Your task to perform on an android device: Show me productivity apps on the Play Store Image 0: 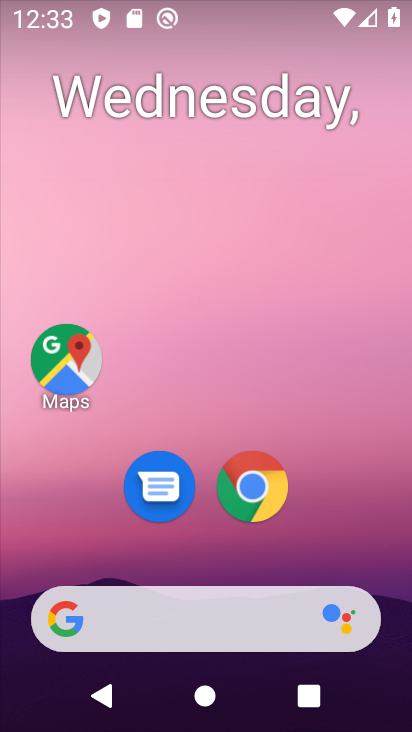
Step 0: drag from (166, 569) to (256, 63)
Your task to perform on an android device: Show me productivity apps on the Play Store Image 1: 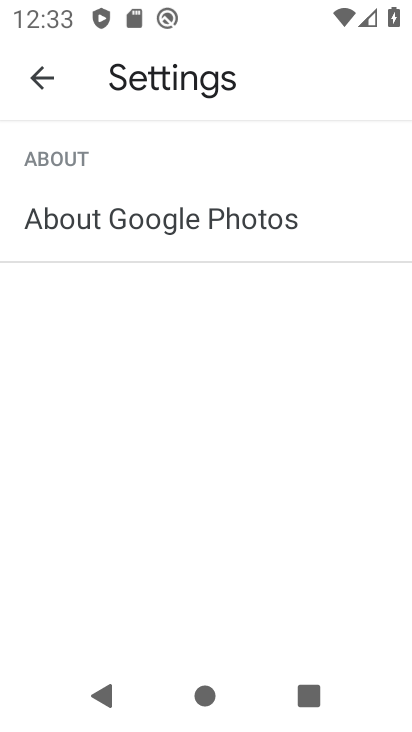
Step 1: press back button
Your task to perform on an android device: Show me productivity apps on the Play Store Image 2: 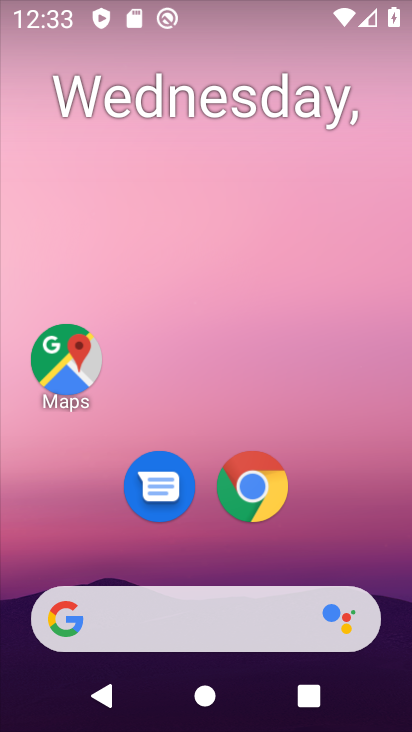
Step 2: drag from (166, 578) to (268, 106)
Your task to perform on an android device: Show me productivity apps on the Play Store Image 3: 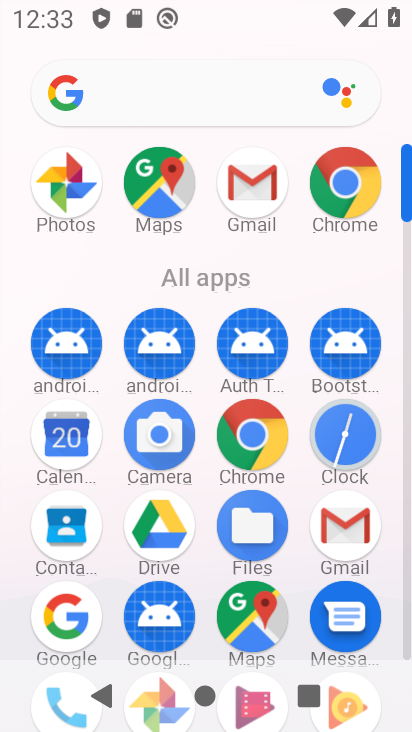
Step 3: drag from (204, 643) to (271, 363)
Your task to perform on an android device: Show me productivity apps on the Play Store Image 4: 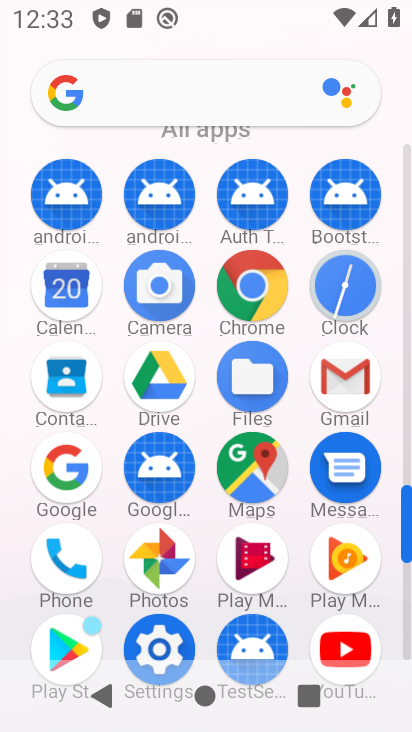
Step 4: click (70, 633)
Your task to perform on an android device: Show me productivity apps on the Play Store Image 5: 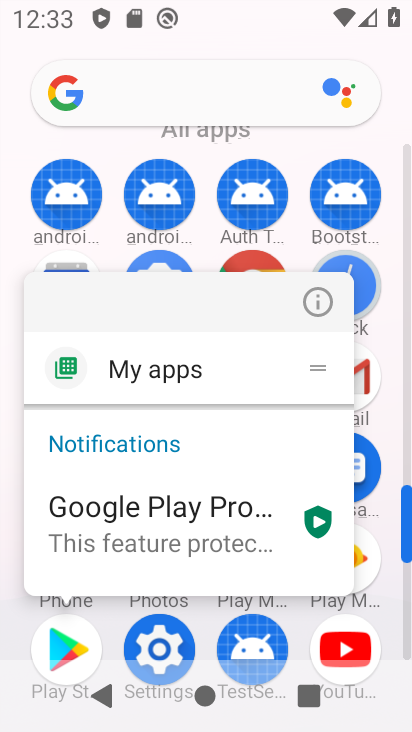
Step 5: click (63, 638)
Your task to perform on an android device: Show me productivity apps on the Play Store Image 6: 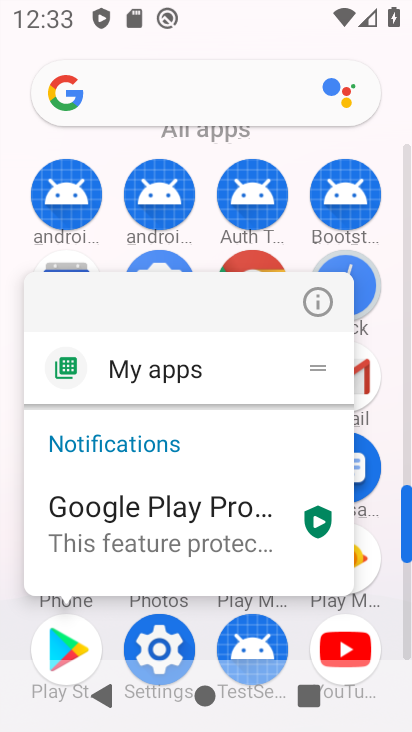
Step 6: click (68, 645)
Your task to perform on an android device: Show me productivity apps on the Play Store Image 7: 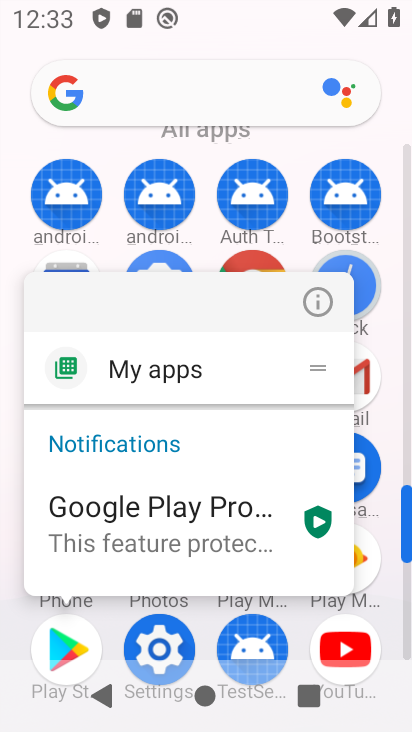
Step 7: click (71, 645)
Your task to perform on an android device: Show me productivity apps on the Play Store Image 8: 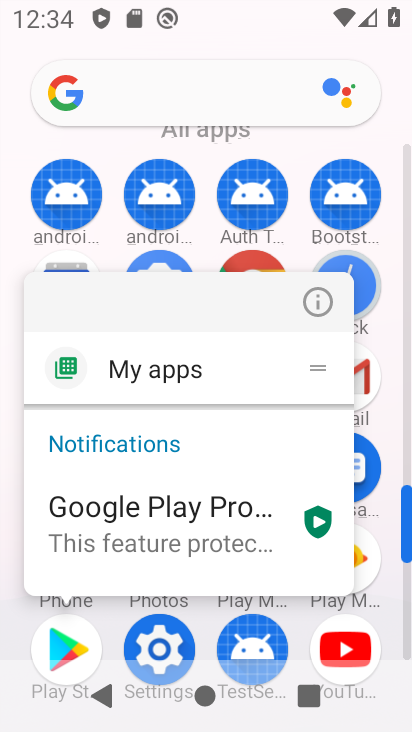
Step 8: click (50, 653)
Your task to perform on an android device: Show me productivity apps on the Play Store Image 9: 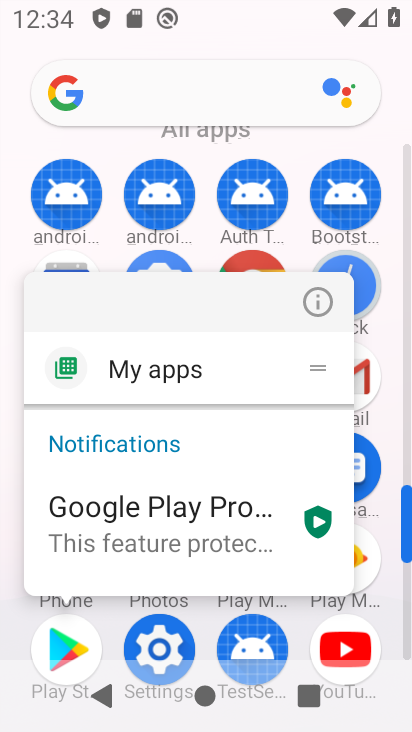
Step 9: click (64, 648)
Your task to perform on an android device: Show me productivity apps on the Play Store Image 10: 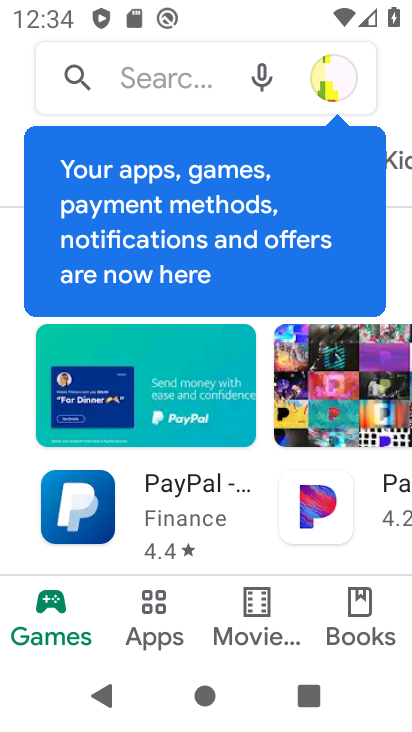
Step 10: click (146, 613)
Your task to perform on an android device: Show me productivity apps on the Play Store Image 11: 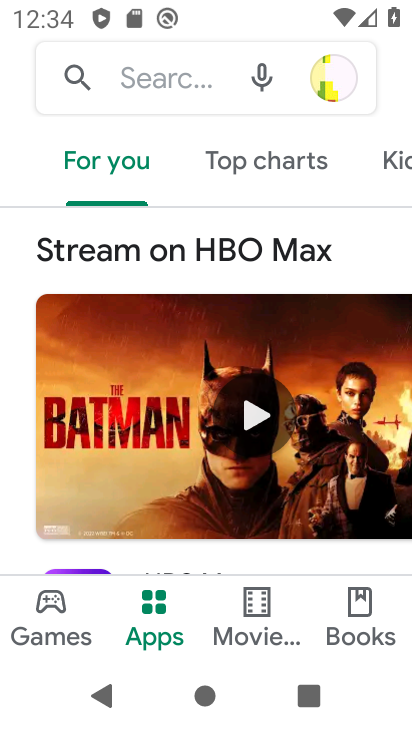
Step 11: drag from (362, 175) to (28, 160)
Your task to perform on an android device: Show me productivity apps on the Play Store Image 12: 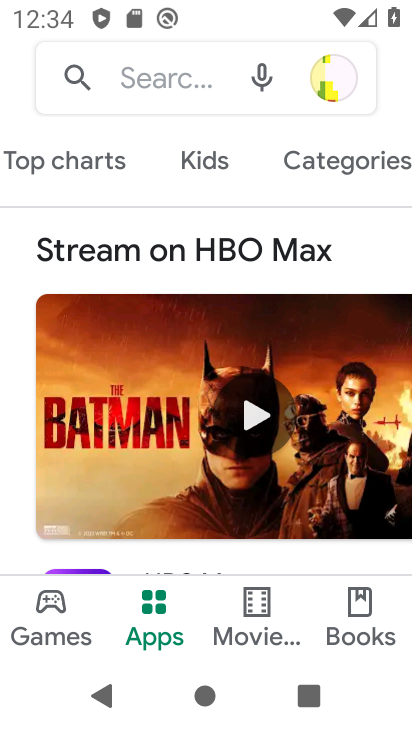
Step 12: drag from (374, 185) to (0, 150)
Your task to perform on an android device: Show me productivity apps on the Play Store Image 13: 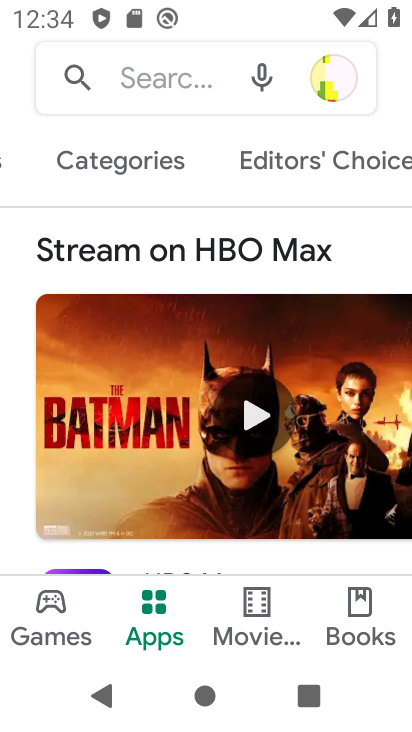
Step 13: drag from (330, 179) to (7, 169)
Your task to perform on an android device: Show me productivity apps on the Play Store Image 14: 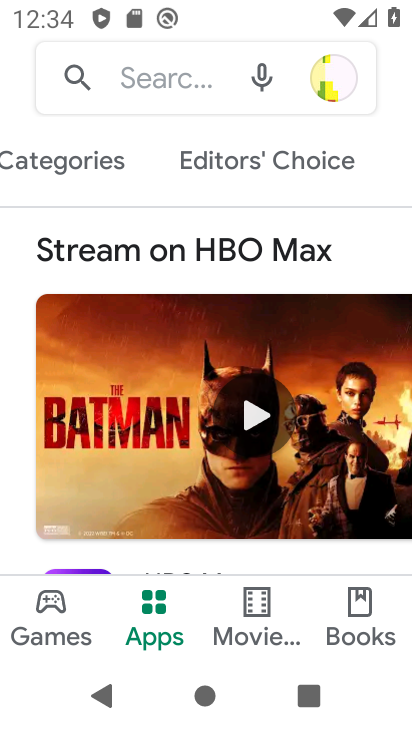
Step 14: click (79, 159)
Your task to perform on an android device: Show me productivity apps on the Play Store Image 15: 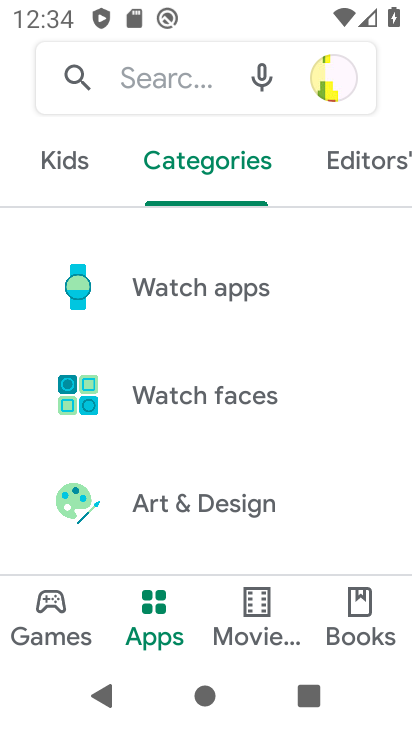
Step 15: drag from (248, 358) to (297, 166)
Your task to perform on an android device: Show me productivity apps on the Play Store Image 16: 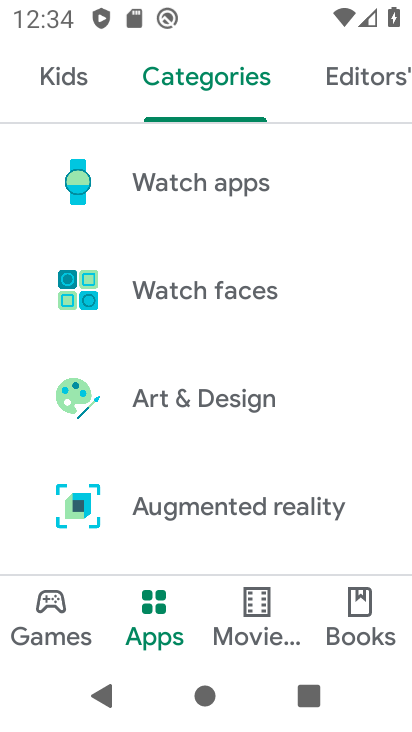
Step 16: drag from (243, 462) to (340, 107)
Your task to perform on an android device: Show me productivity apps on the Play Store Image 17: 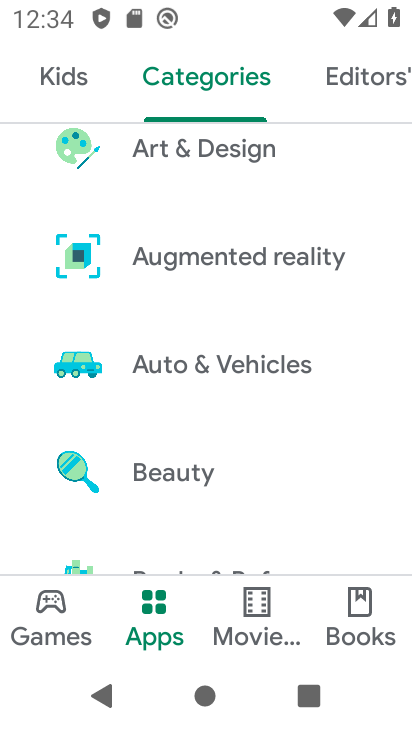
Step 17: drag from (213, 444) to (340, 72)
Your task to perform on an android device: Show me productivity apps on the Play Store Image 18: 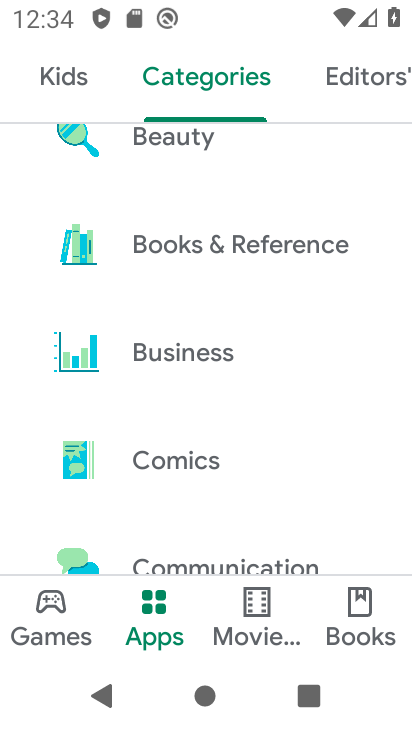
Step 18: drag from (248, 536) to (322, 108)
Your task to perform on an android device: Show me productivity apps on the Play Store Image 19: 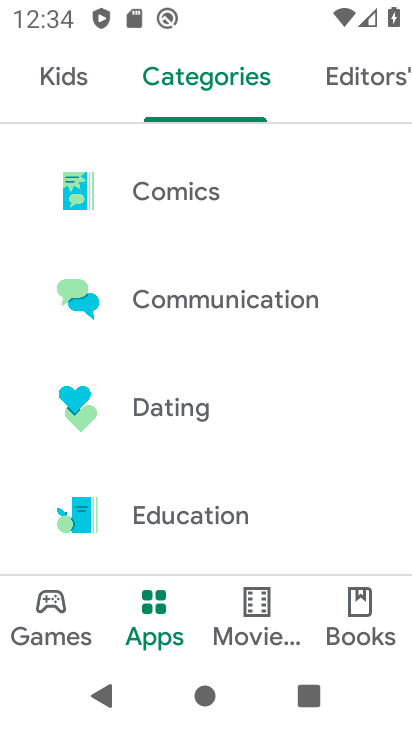
Step 19: drag from (239, 548) to (402, 95)
Your task to perform on an android device: Show me productivity apps on the Play Store Image 20: 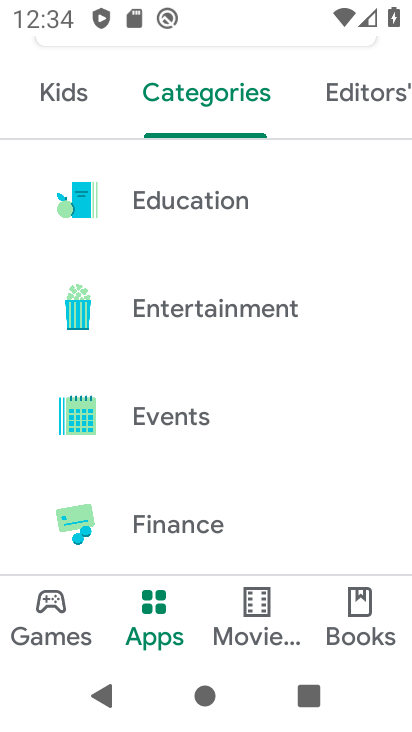
Step 20: drag from (250, 440) to (323, 85)
Your task to perform on an android device: Show me productivity apps on the Play Store Image 21: 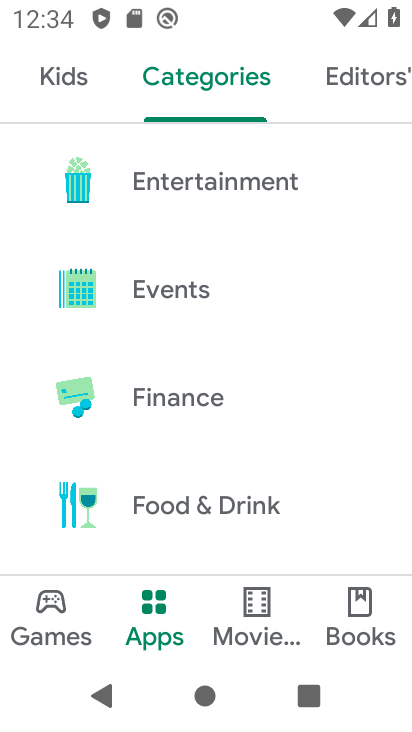
Step 21: drag from (161, 543) to (322, 72)
Your task to perform on an android device: Show me productivity apps on the Play Store Image 22: 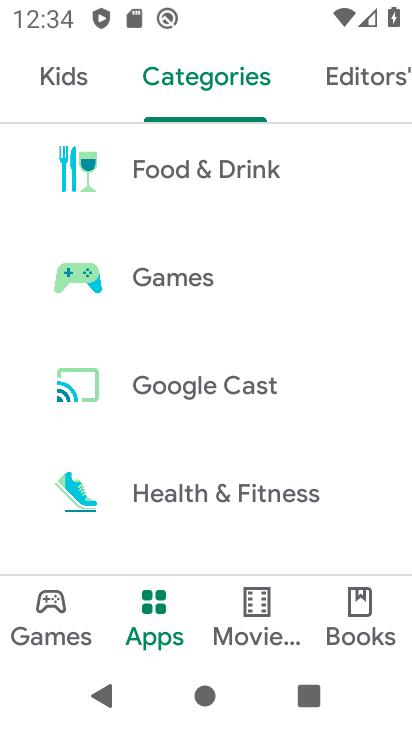
Step 22: drag from (232, 576) to (400, 90)
Your task to perform on an android device: Show me productivity apps on the Play Store Image 23: 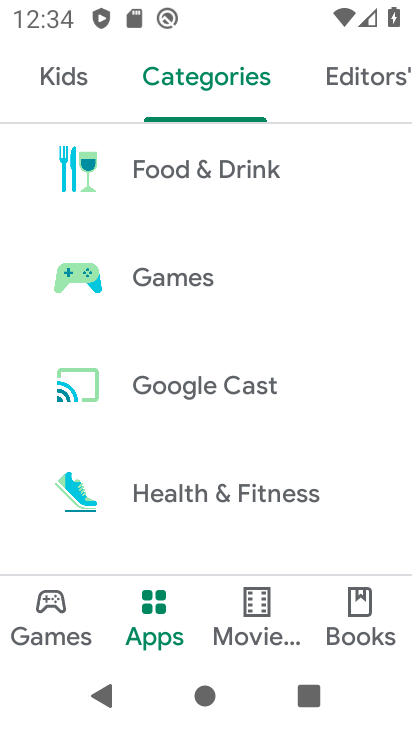
Step 23: drag from (232, 493) to (342, 111)
Your task to perform on an android device: Show me productivity apps on the Play Store Image 24: 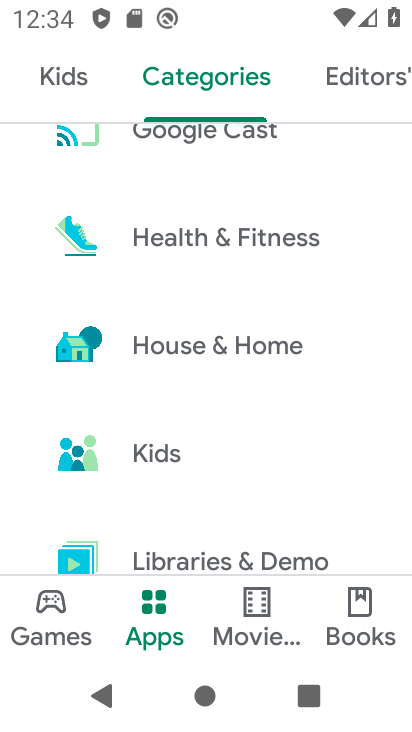
Step 24: drag from (201, 474) to (287, 169)
Your task to perform on an android device: Show me productivity apps on the Play Store Image 25: 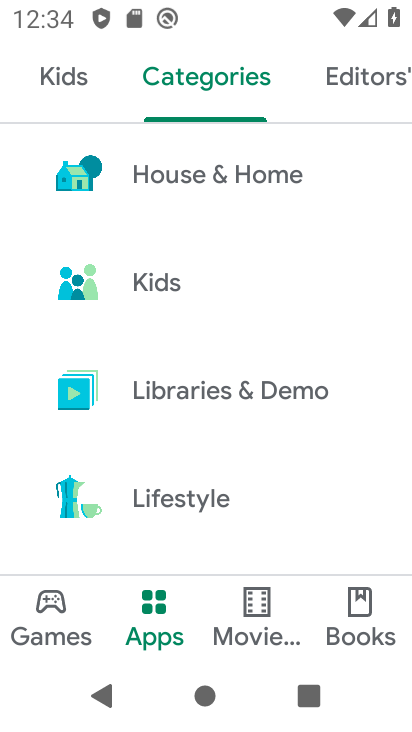
Step 25: drag from (265, 444) to (339, 111)
Your task to perform on an android device: Show me productivity apps on the Play Store Image 26: 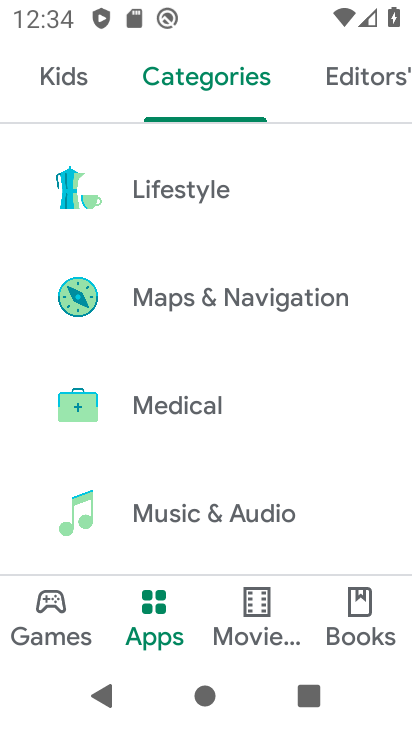
Step 26: drag from (289, 375) to (395, 91)
Your task to perform on an android device: Show me productivity apps on the Play Store Image 27: 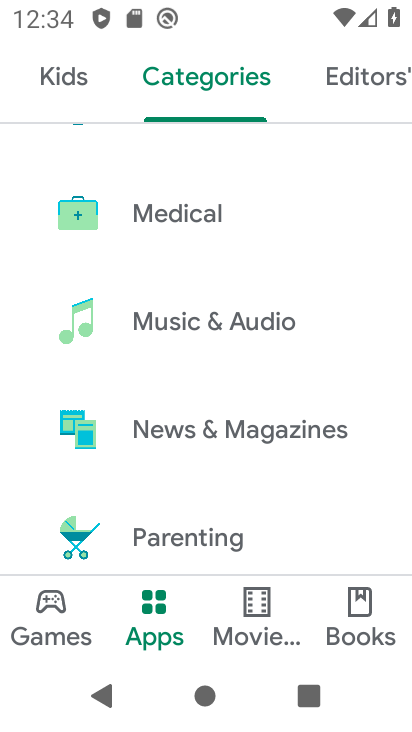
Step 27: drag from (269, 495) to (354, 148)
Your task to perform on an android device: Show me productivity apps on the Play Store Image 28: 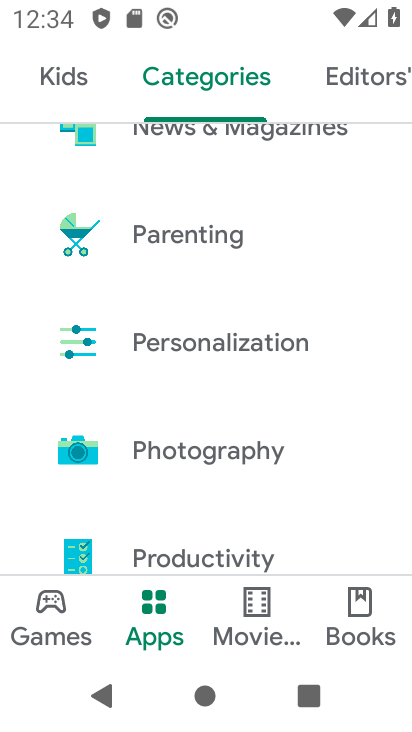
Step 28: drag from (263, 482) to (330, 264)
Your task to perform on an android device: Show me productivity apps on the Play Store Image 29: 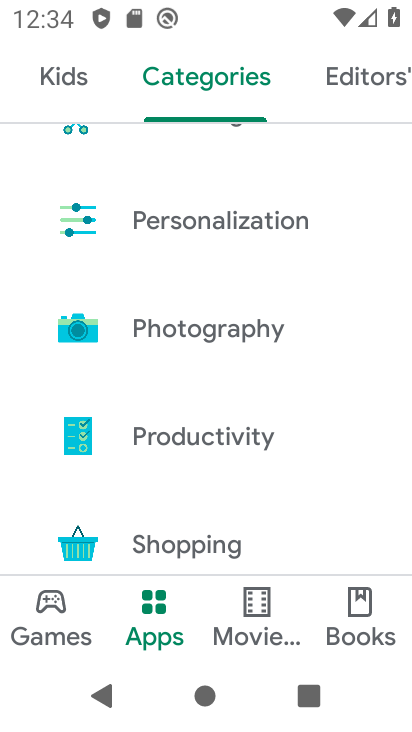
Step 29: click (246, 438)
Your task to perform on an android device: Show me productivity apps on the Play Store Image 30: 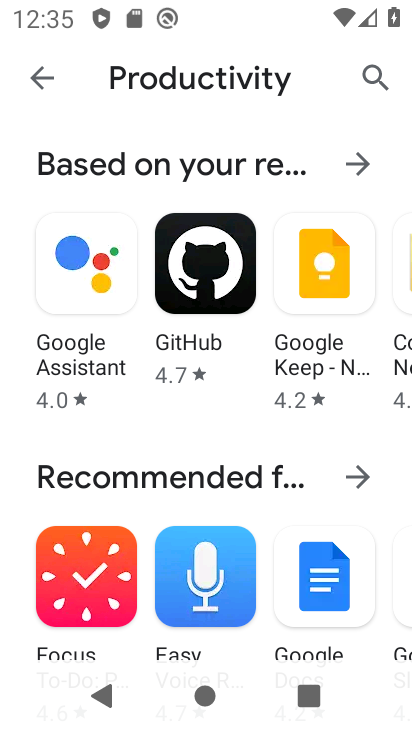
Step 30: task complete